Your task to perform on an android device: Open network settings Image 0: 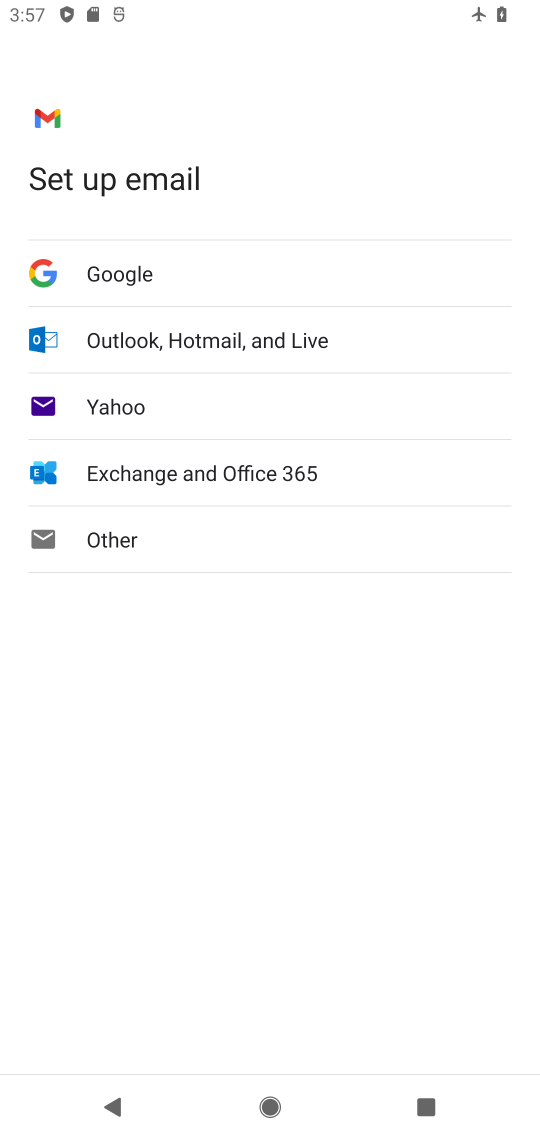
Step 0: press home button
Your task to perform on an android device: Open network settings Image 1: 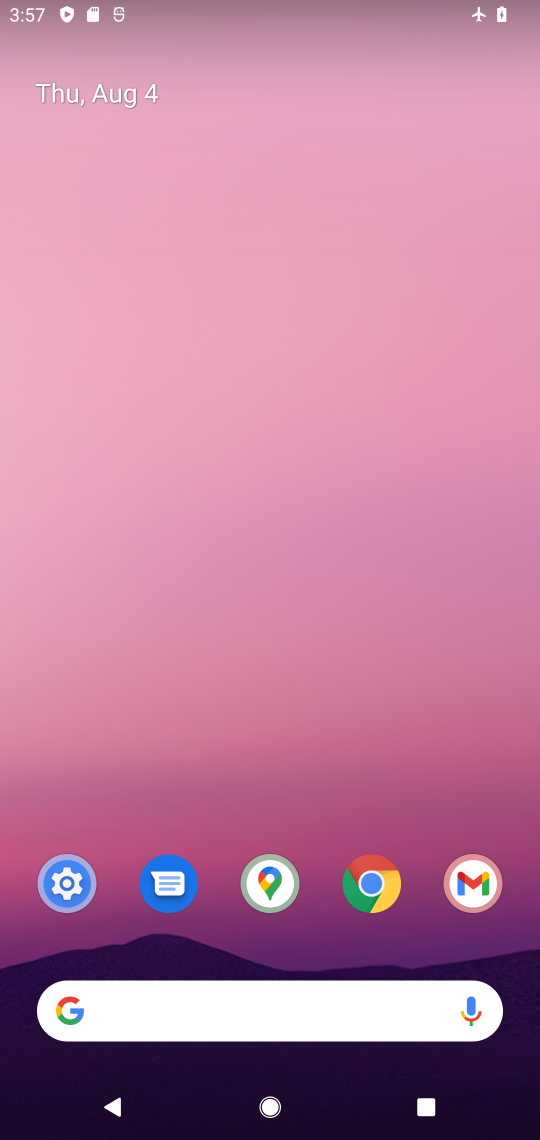
Step 1: drag from (498, 799) to (255, 95)
Your task to perform on an android device: Open network settings Image 2: 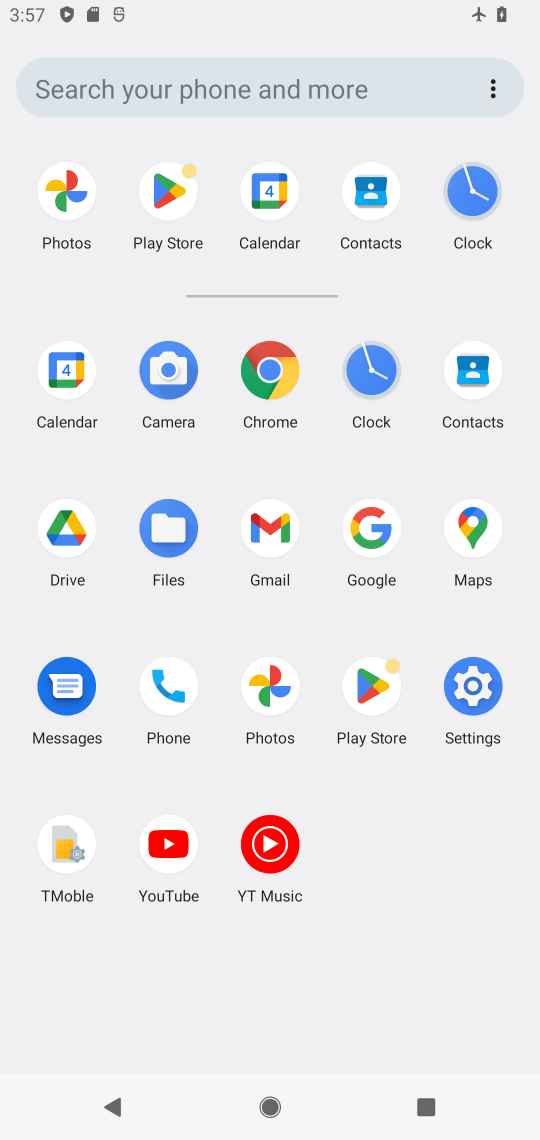
Step 2: click (460, 684)
Your task to perform on an android device: Open network settings Image 3: 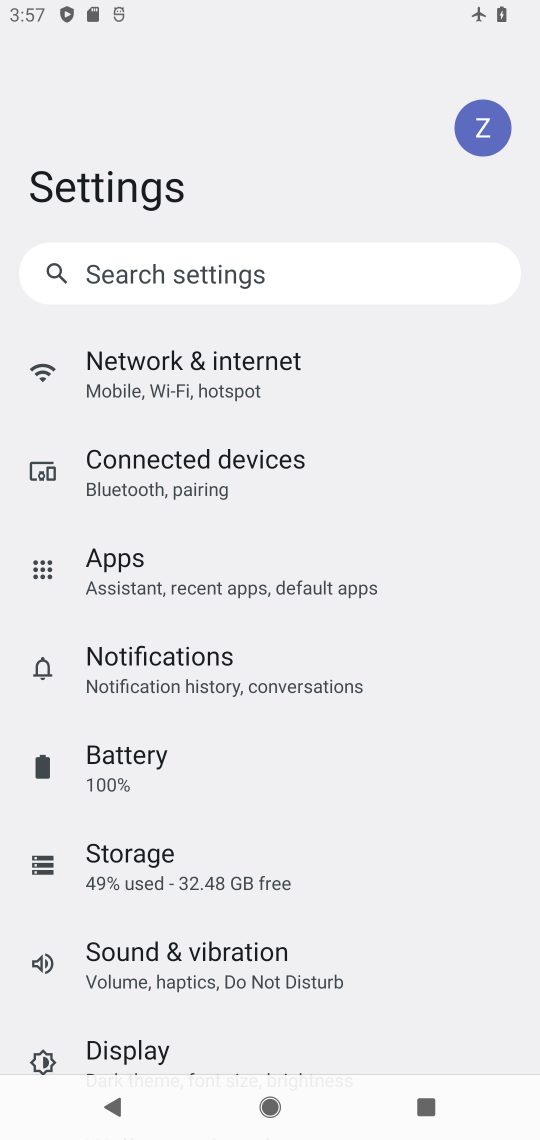
Step 3: click (215, 380)
Your task to perform on an android device: Open network settings Image 4: 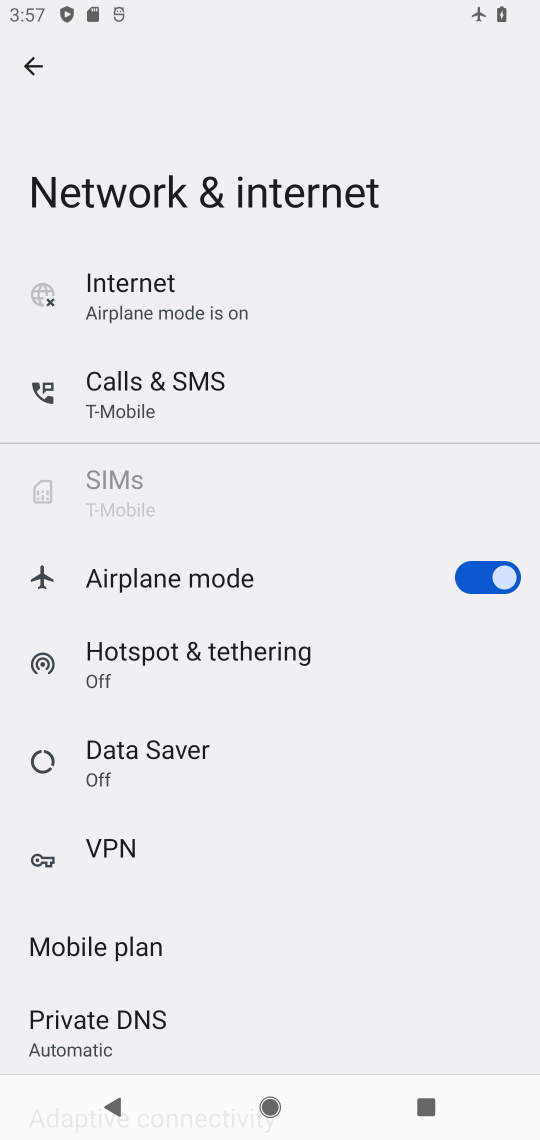
Step 4: task complete